Your task to perform on an android device: Show me productivity apps on the Play Store Image 0: 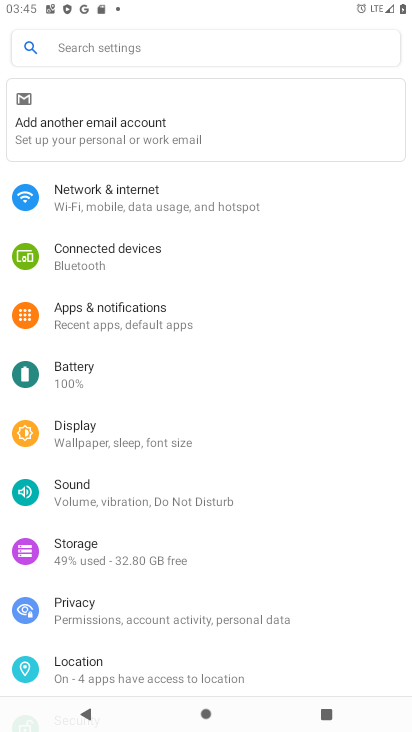
Step 0: press home button
Your task to perform on an android device: Show me productivity apps on the Play Store Image 1: 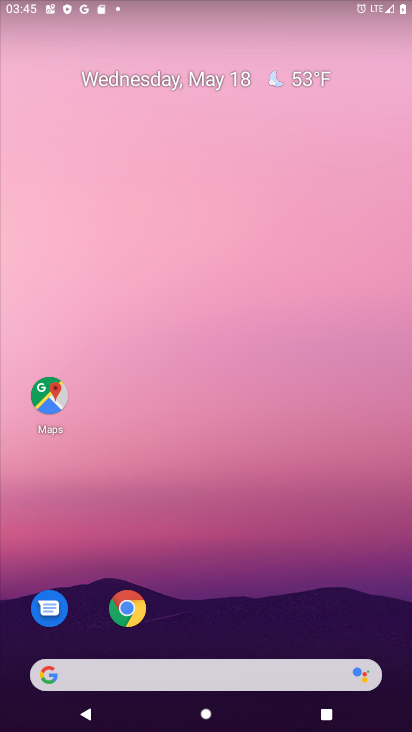
Step 1: drag from (375, 681) to (354, 1)
Your task to perform on an android device: Show me productivity apps on the Play Store Image 2: 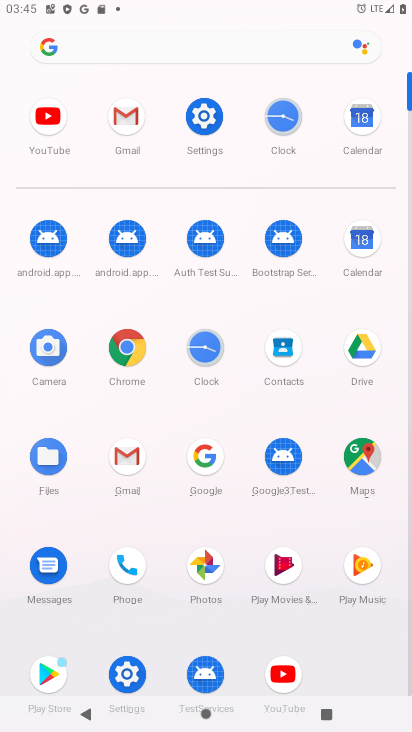
Step 2: click (46, 676)
Your task to perform on an android device: Show me productivity apps on the Play Store Image 3: 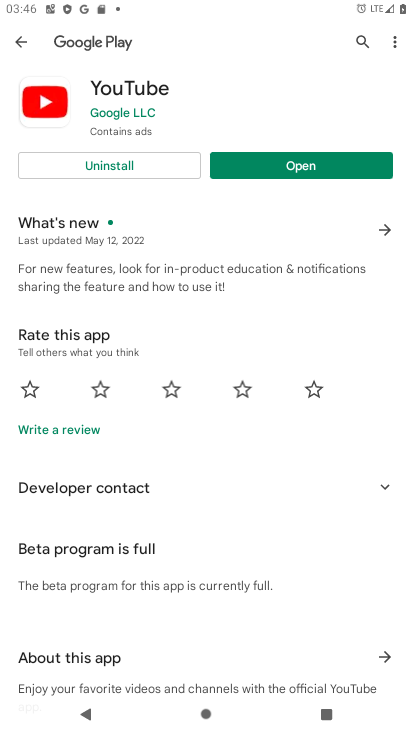
Step 3: click (21, 47)
Your task to perform on an android device: Show me productivity apps on the Play Store Image 4: 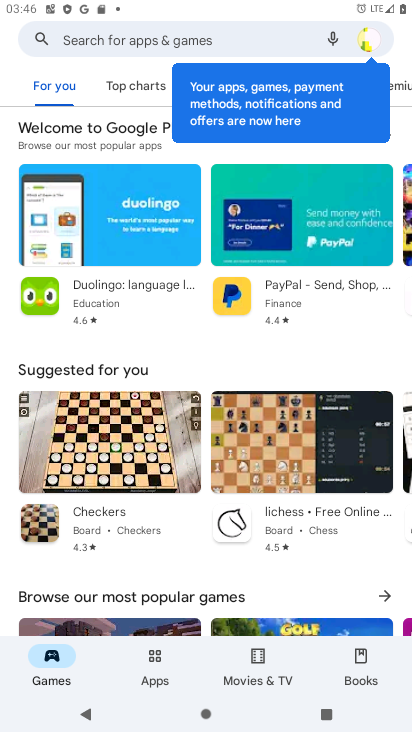
Step 4: click (143, 672)
Your task to perform on an android device: Show me productivity apps on the Play Store Image 5: 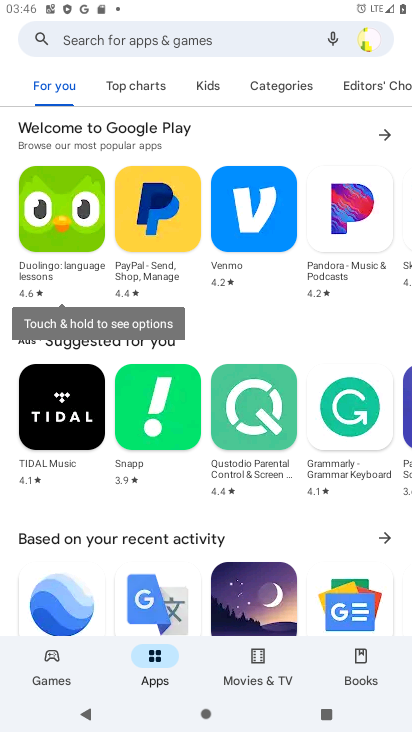
Step 5: click (263, 86)
Your task to perform on an android device: Show me productivity apps on the Play Store Image 6: 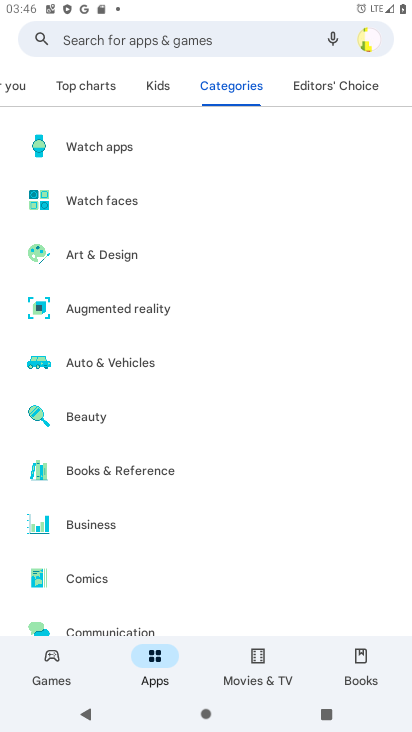
Step 6: drag from (149, 550) to (157, 103)
Your task to perform on an android device: Show me productivity apps on the Play Store Image 7: 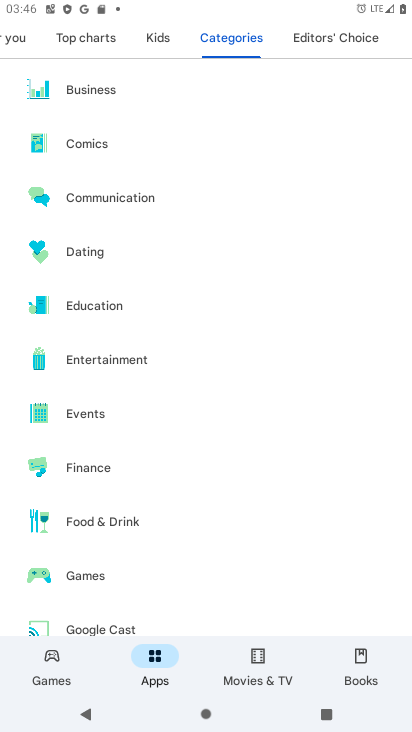
Step 7: drag from (195, 525) to (198, 65)
Your task to perform on an android device: Show me productivity apps on the Play Store Image 8: 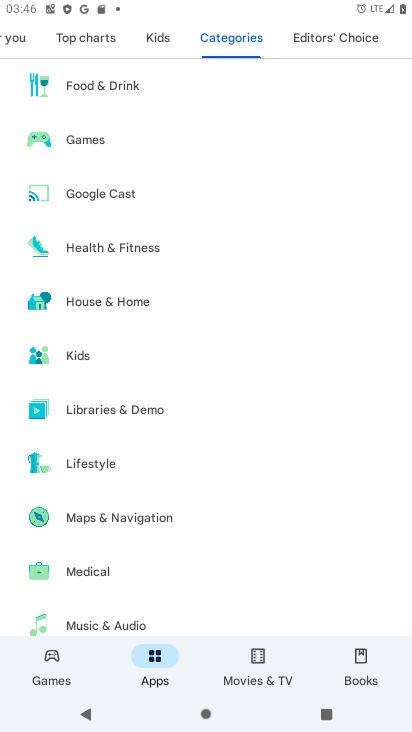
Step 8: drag from (229, 588) to (276, 52)
Your task to perform on an android device: Show me productivity apps on the Play Store Image 9: 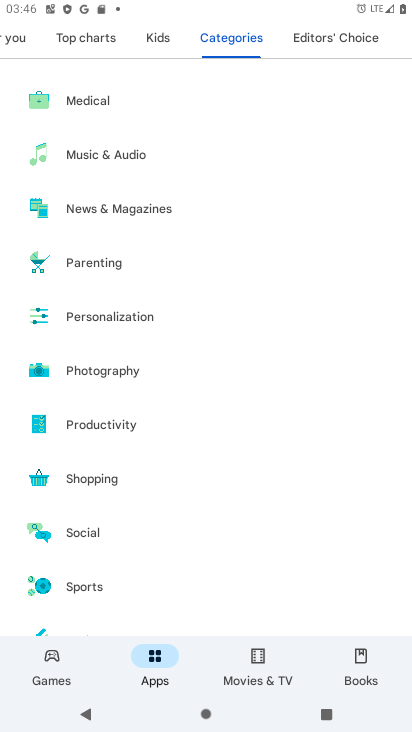
Step 9: click (91, 427)
Your task to perform on an android device: Show me productivity apps on the Play Store Image 10: 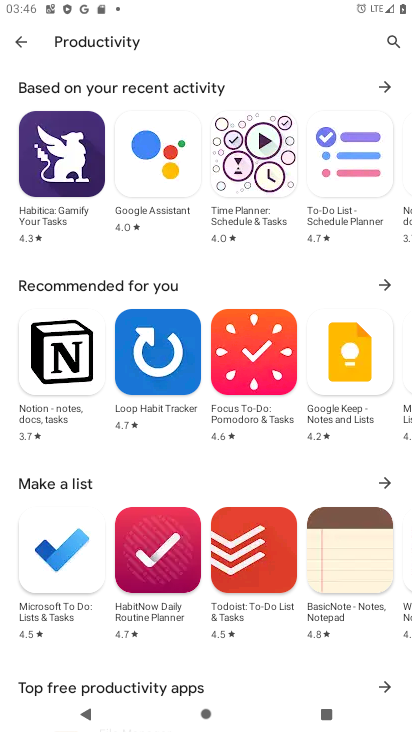
Step 10: task complete